Your task to perform on an android device: Go to eBay Image 0: 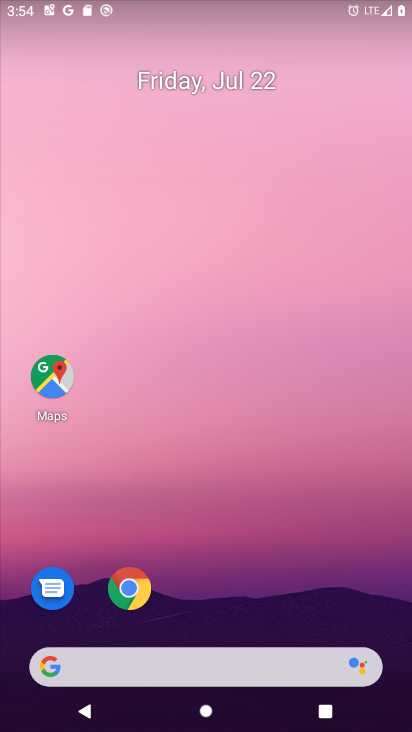
Step 0: drag from (332, 558) to (291, 70)
Your task to perform on an android device: Go to eBay Image 1: 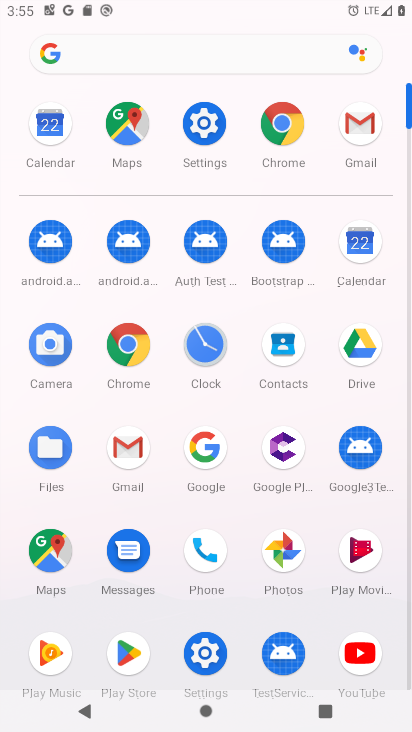
Step 1: click (129, 348)
Your task to perform on an android device: Go to eBay Image 2: 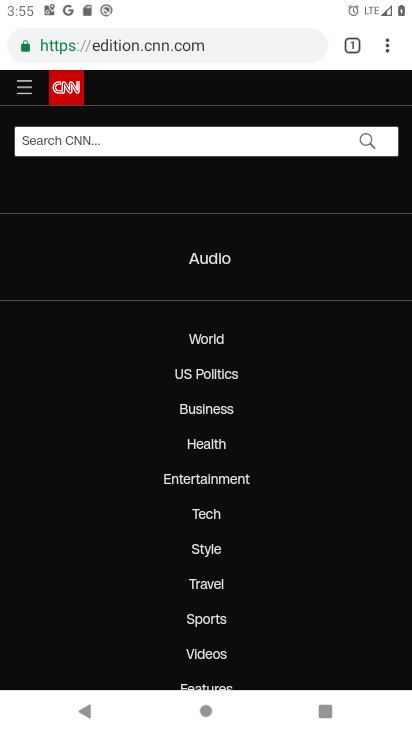
Step 2: click (142, 42)
Your task to perform on an android device: Go to eBay Image 3: 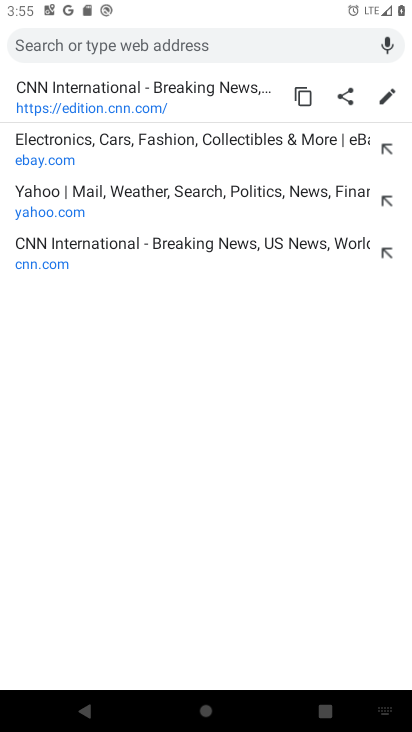
Step 3: type "eBay"
Your task to perform on an android device: Go to eBay Image 4: 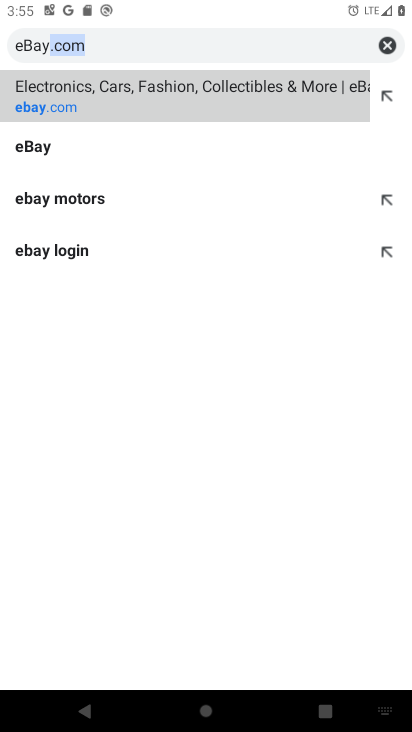
Step 4: click (38, 99)
Your task to perform on an android device: Go to eBay Image 5: 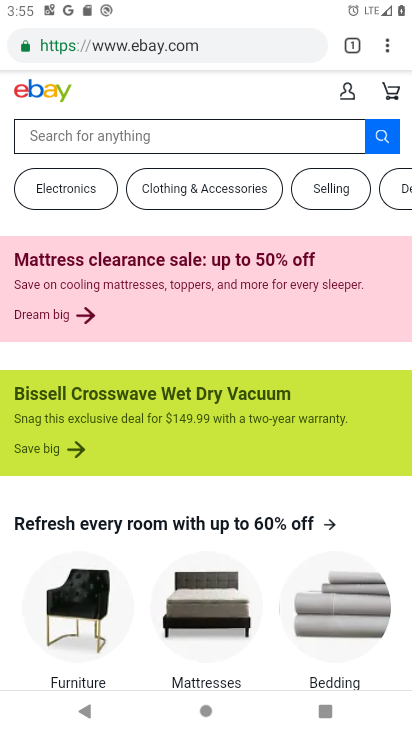
Step 5: task complete